Your task to perform on an android device: turn on data saver in the chrome app Image 0: 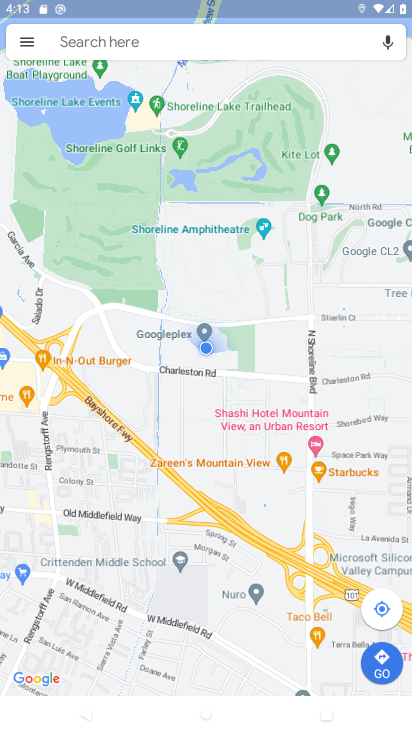
Step 0: press home button
Your task to perform on an android device: turn on data saver in the chrome app Image 1: 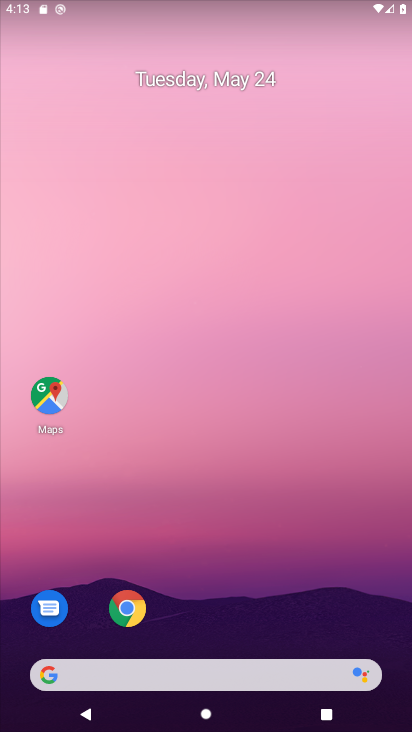
Step 1: click (131, 599)
Your task to perform on an android device: turn on data saver in the chrome app Image 2: 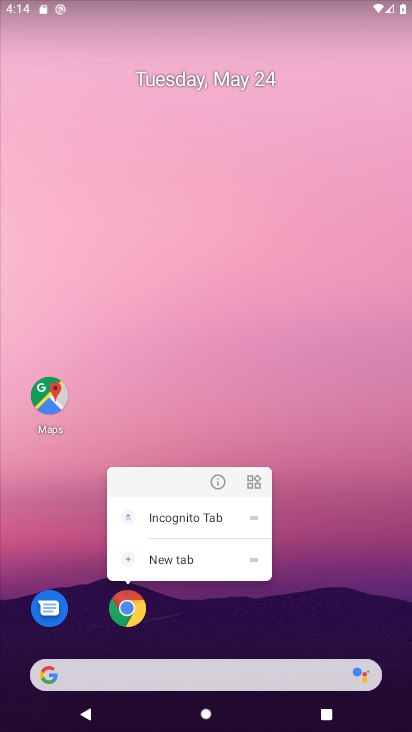
Step 2: click (134, 602)
Your task to perform on an android device: turn on data saver in the chrome app Image 3: 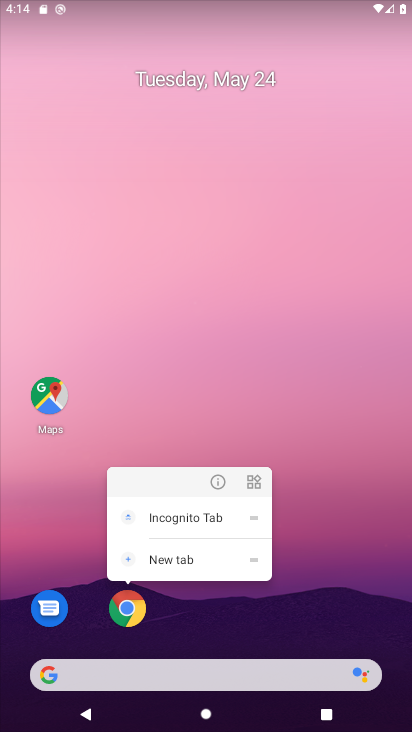
Step 3: click (125, 617)
Your task to perform on an android device: turn on data saver in the chrome app Image 4: 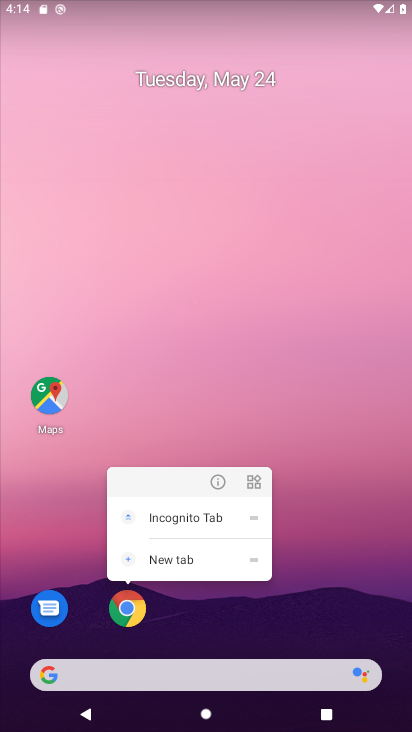
Step 4: click (135, 608)
Your task to perform on an android device: turn on data saver in the chrome app Image 5: 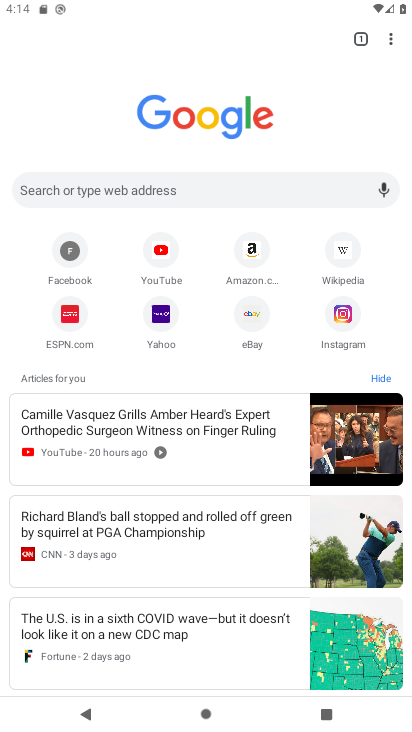
Step 5: click (391, 43)
Your task to perform on an android device: turn on data saver in the chrome app Image 6: 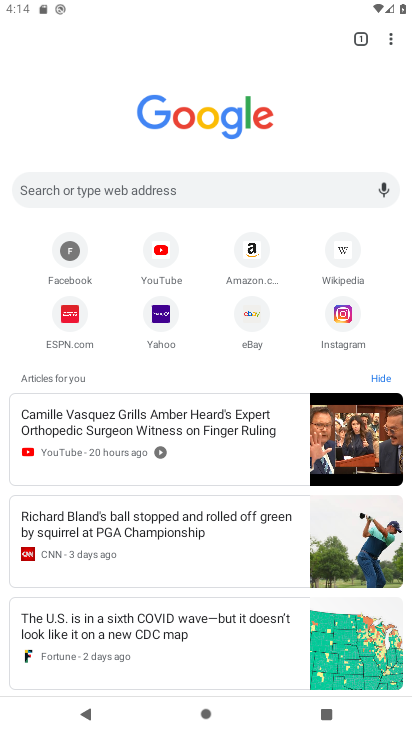
Step 6: click (398, 31)
Your task to perform on an android device: turn on data saver in the chrome app Image 7: 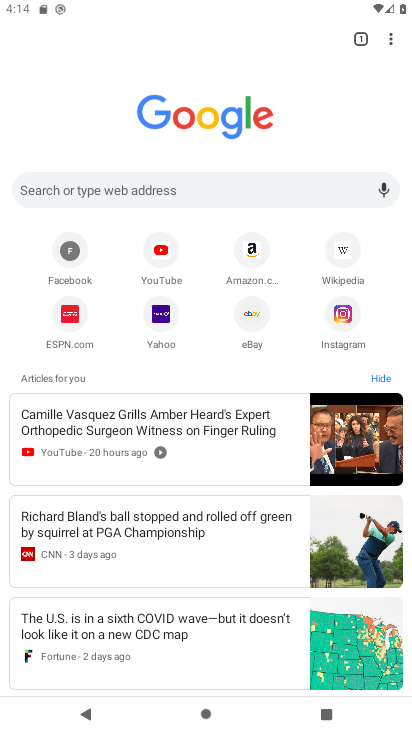
Step 7: click (392, 37)
Your task to perform on an android device: turn on data saver in the chrome app Image 8: 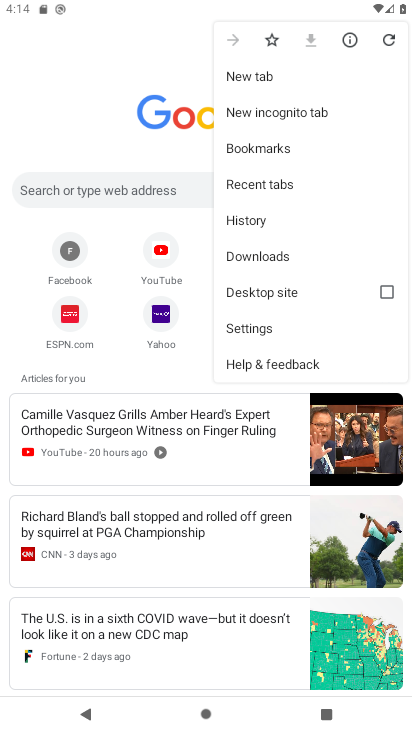
Step 8: click (246, 321)
Your task to perform on an android device: turn on data saver in the chrome app Image 9: 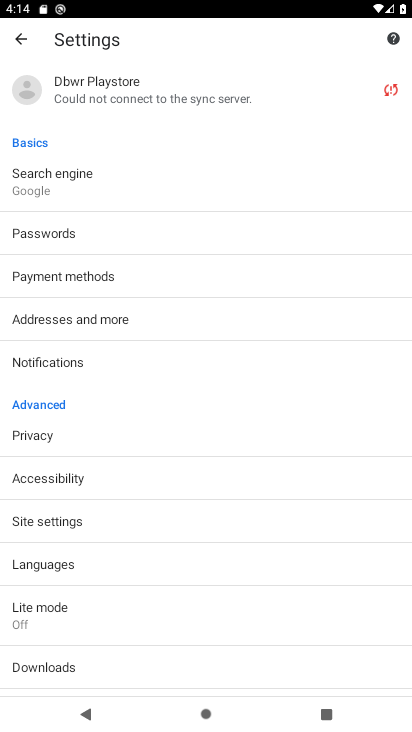
Step 9: drag from (72, 669) to (78, 326)
Your task to perform on an android device: turn on data saver in the chrome app Image 10: 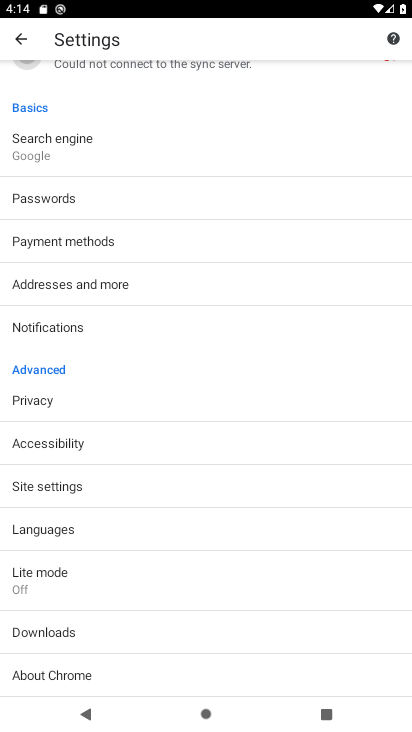
Step 10: click (41, 582)
Your task to perform on an android device: turn on data saver in the chrome app Image 11: 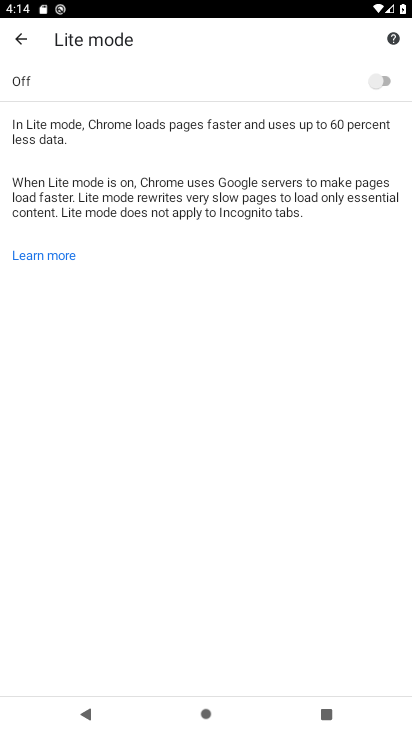
Step 11: click (383, 81)
Your task to perform on an android device: turn on data saver in the chrome app Image 12: 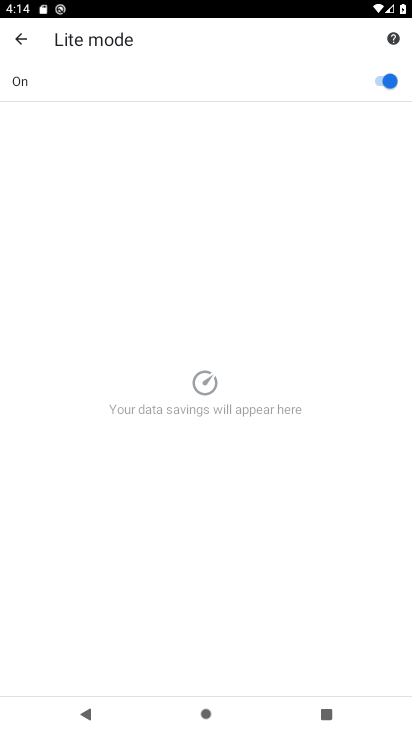
Step 12: task complete